Your task to perform on an android device: Open network settings Image 0: 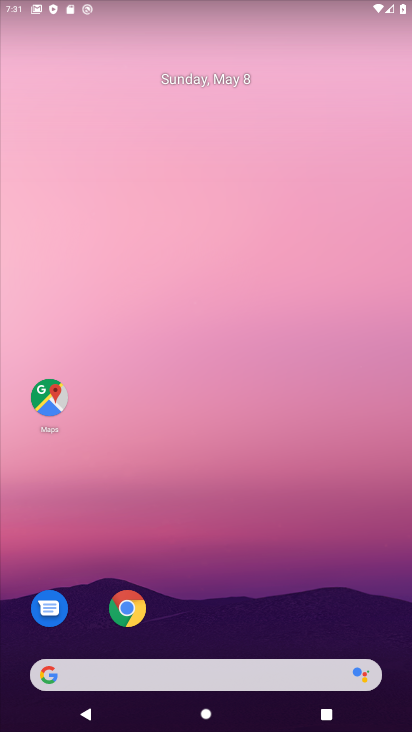
Step 0: drag from (208, 566) to (190, 307)
Your task to perform on an android device: Open network settings Image 1: 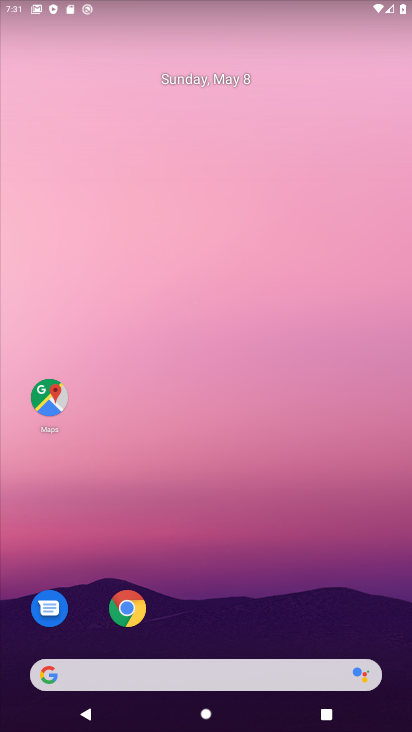
Step 1: drag from (268, 398) to (314, 132)
Your task to perform on an android device: Open network settings Image 2: 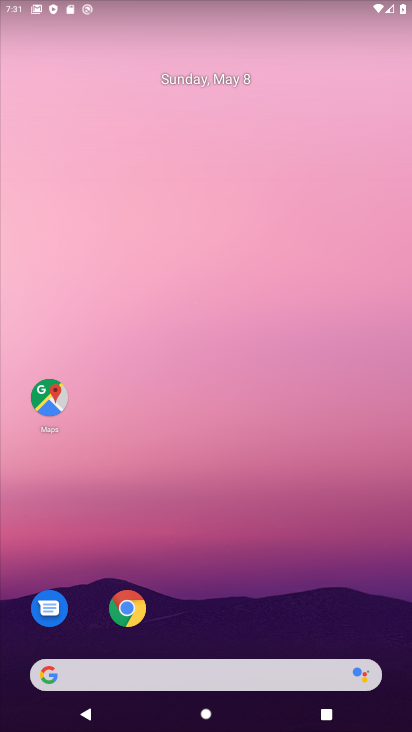
Step 2: drag from (195, 623) to (279, 118)
Your task to perform on an android device: Open network settings Image 3: 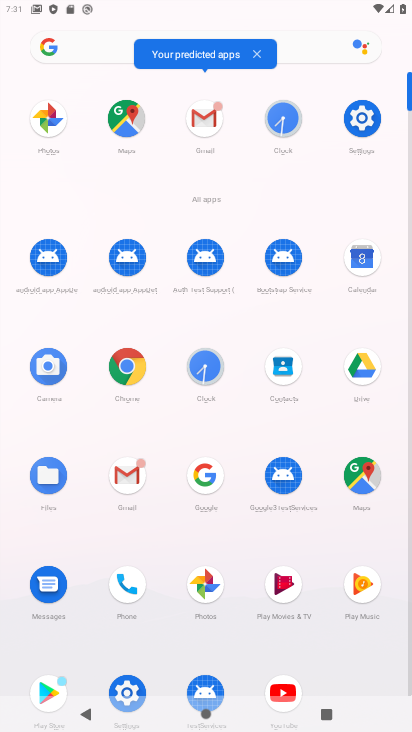
Step 3: click (361, 113)
Your task to perform on an android device: Open network settings Image 4: 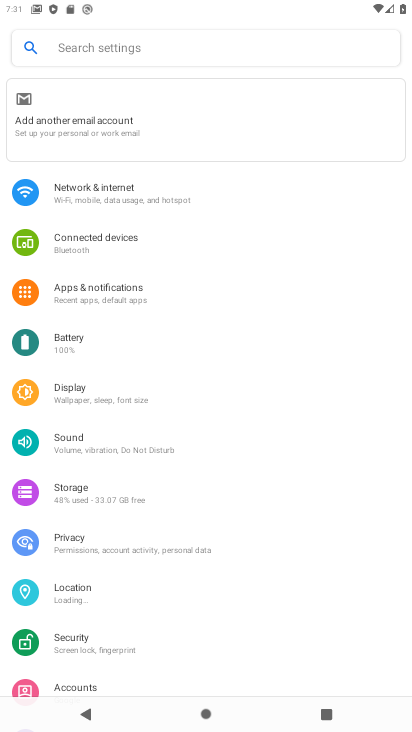
Step 4: click (114, 190)
Your task to perform on an android device: Open network settings Image 5: 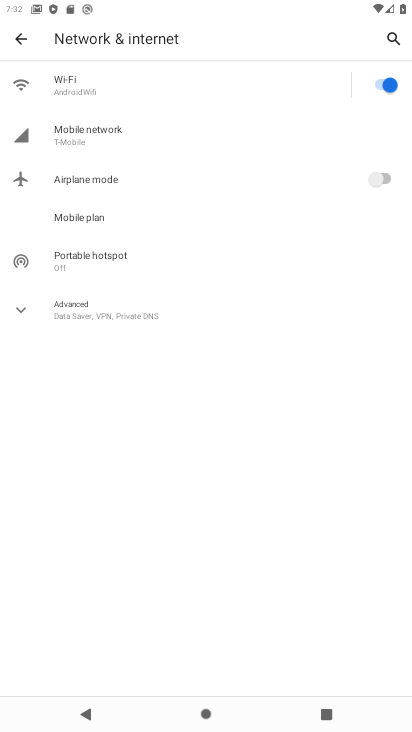
Step 5: task complete